Your task to perform on an android device: Open display settings Image 0: 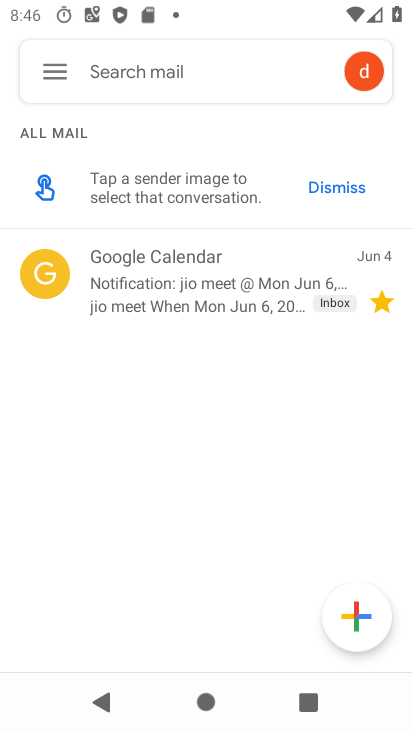
Step 0: press home button
Your task to perform on an android device: Open display settings Image 1: 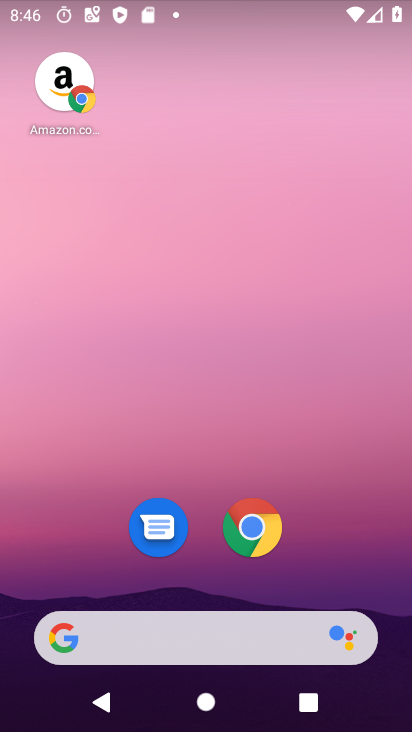
Step 1: drag from (314, 423) to (336, 0)
Your task to perform on an android device: Open display settings Image 2: 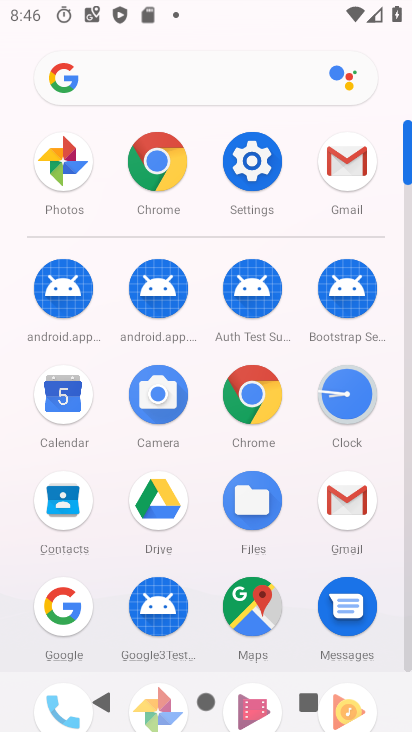
Step 2: click (261, 186)
Your task to perform on an android device: Open display settings Image 3: 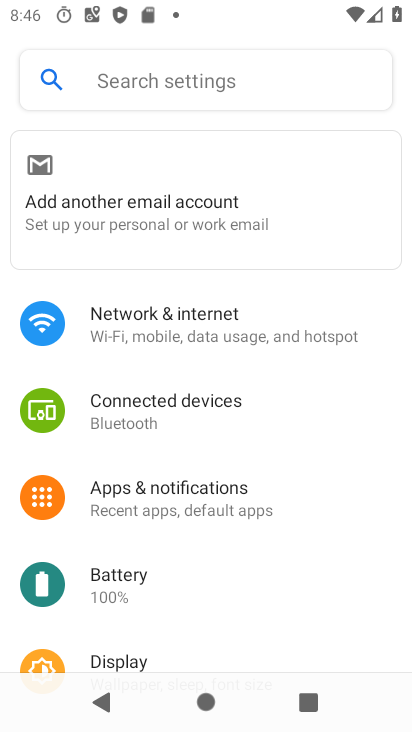
Step 3: drag from (175, 576) to (208, 190)
Your task to perform on an android device: Open display settings Image 4: 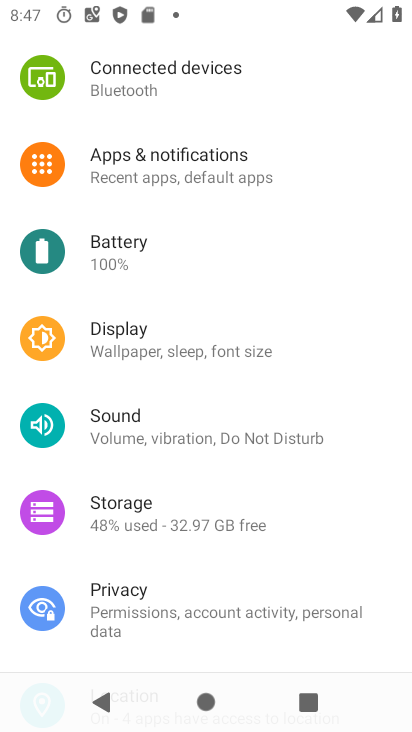
Step 4: click (154, 358)
Your task to perform on an android device: Open display settings Image 5: 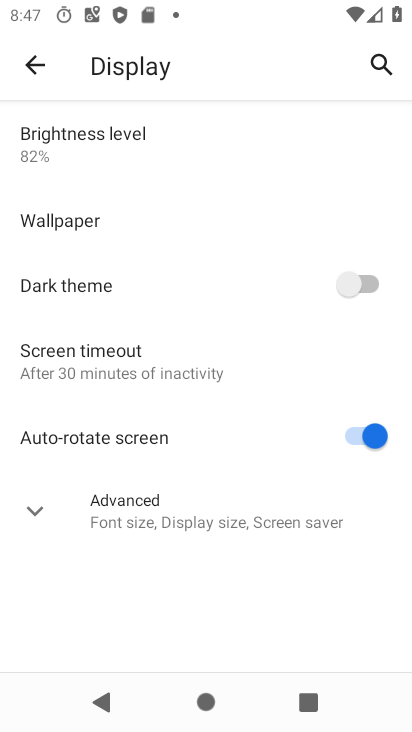
Step 5: task complete